Your task to perform on an android device: find photos in the google photos app Image 0: 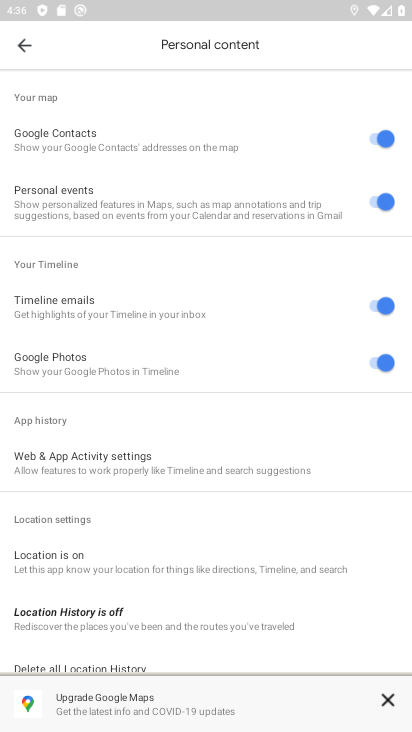
Step 0: click (21, 41)
Your task to perform on an android device: find photos in the google photos app Image 1: 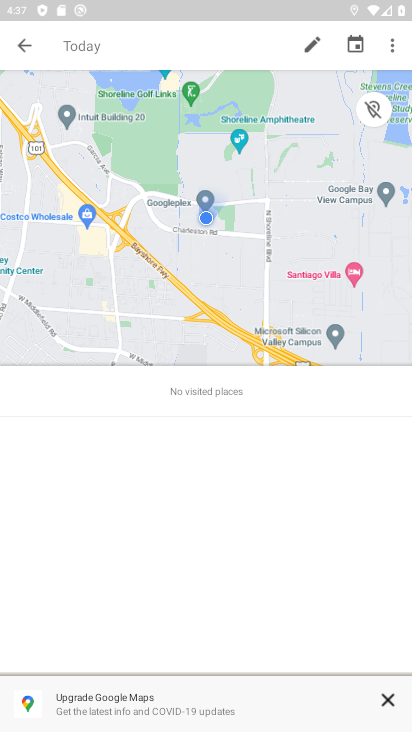
Step 1: click (23, 50)
Your task to perform on an android device: find photos in the google photos app Image 2: 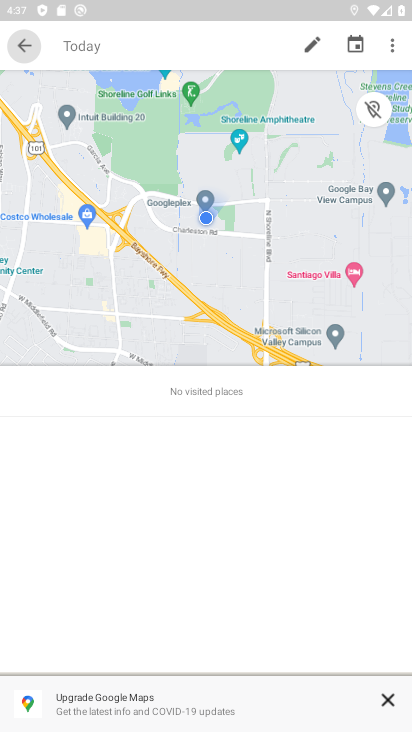
Step 2: click (15, 47)
Your task to perform on an android device: find photos in the google photos app Image 3: 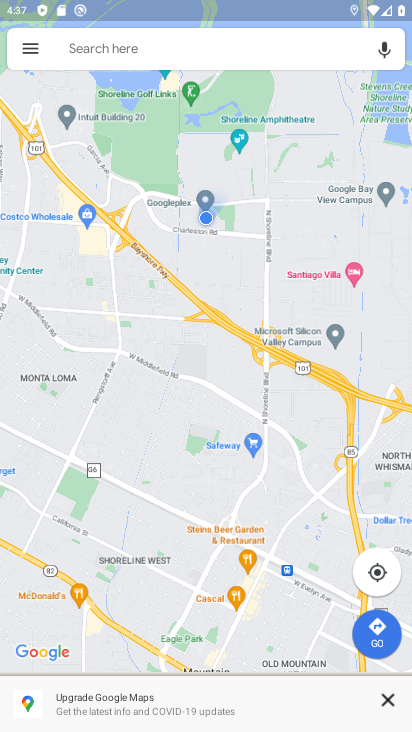
Step 3: click (30, 47)
Your task to perform on an android device: find photos in the google photos app Image 4: 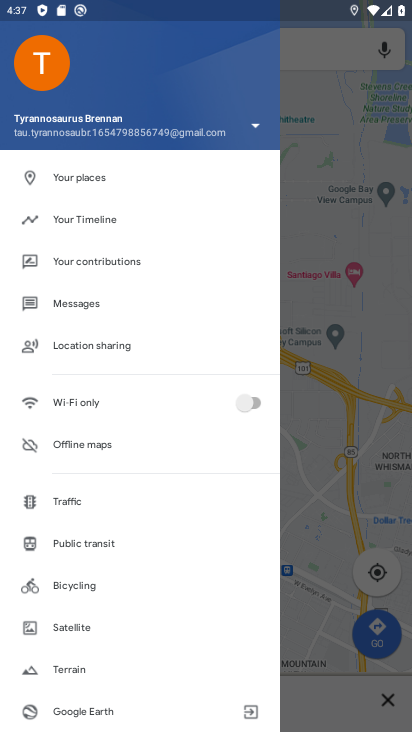
Step 4: click (330, 247)
Your task to perform on an android device: find photos in the google photos app Image 5: 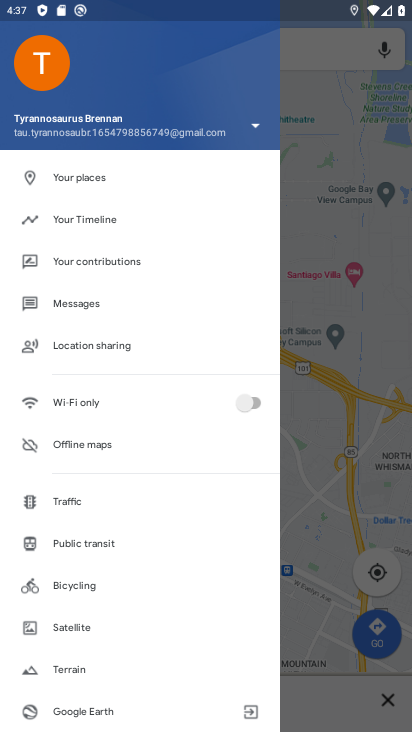
Step 5: click (330, 247)
Your task to perform on an android device: find photos in the google photos app Image 6: 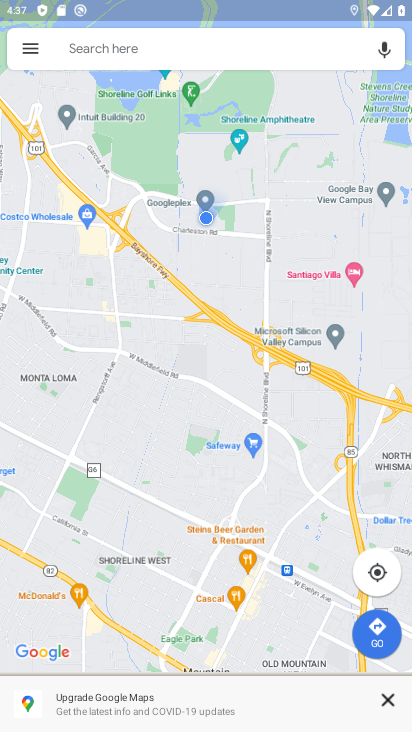
Step 6: press back button
Your task to perform on an android device: find photos in the google photos app Image 7: 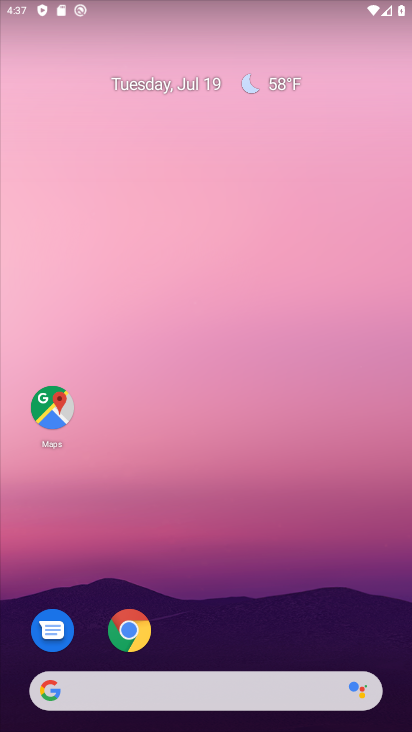
Step 7: drag from (282, 430) to (190, 26)
Your task to perform on an android device: find photos in the google photos app Image 8: 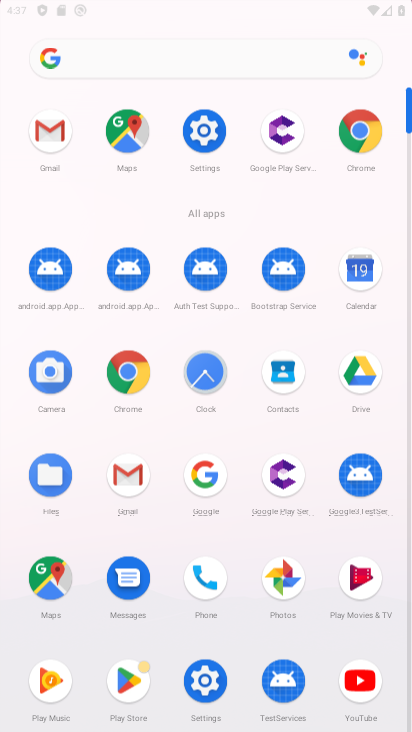
Step 8: drag from (185, 622) to (133, 145)
Your task to perform on an android device: find photos in the google photos app Image 9: 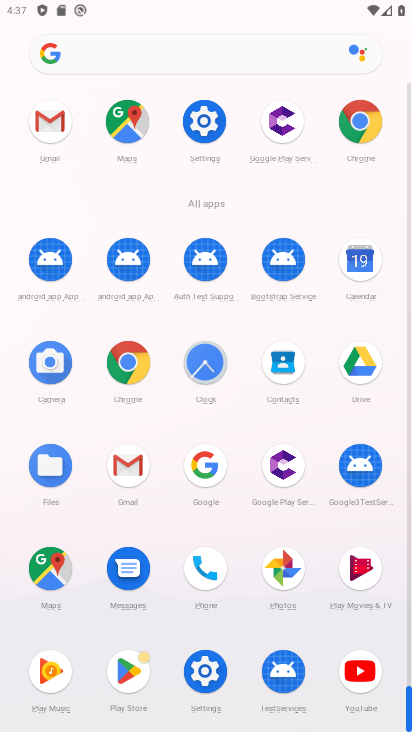
Step 9: click (300, 556)
Your task to perform on an android device: find photos in the google photos app Image 10: 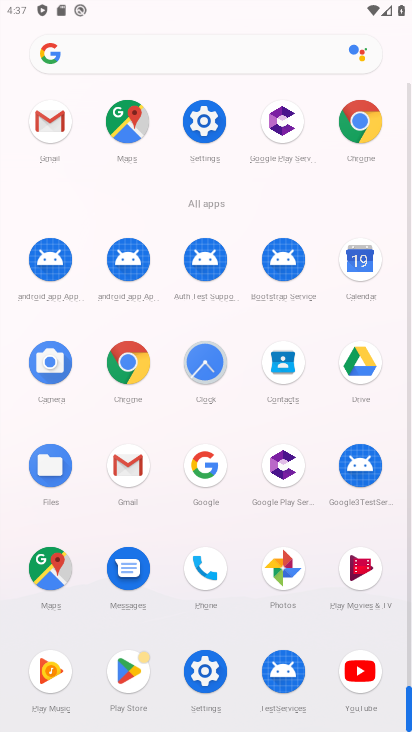
Step 10: click (294, 556)
Your task to perform on an android device: find photos in the google photos app Image 11: 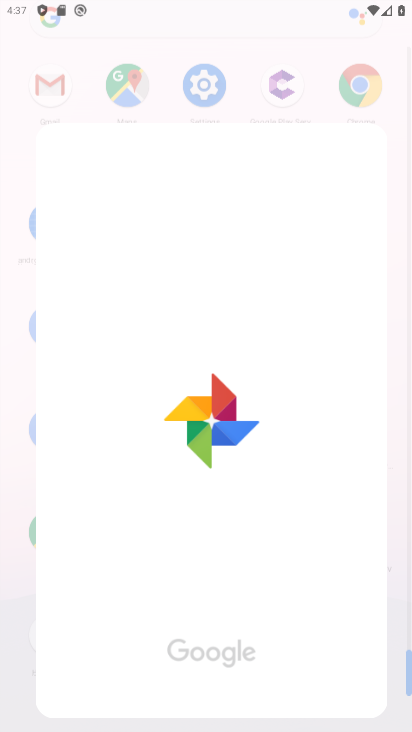
Step 11: click (285, 560)
Your task to perform on an android device: find photos in the google photos app Image 12: 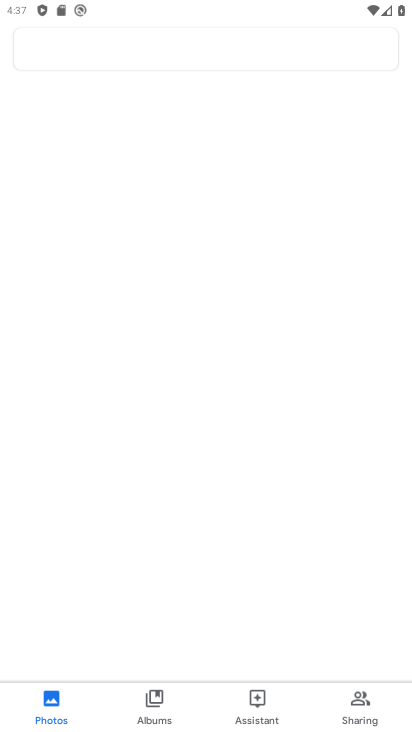
Step 12: click (285, 560)
Your task to perform on an android device: find photos in the google photos app Image 13: 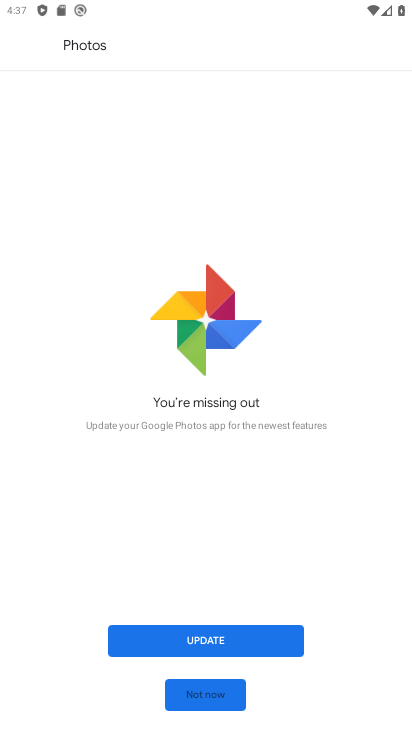
Step 13: click (204, 689)
Your task to perform on an android device: find photos in the google photos app Image 14: 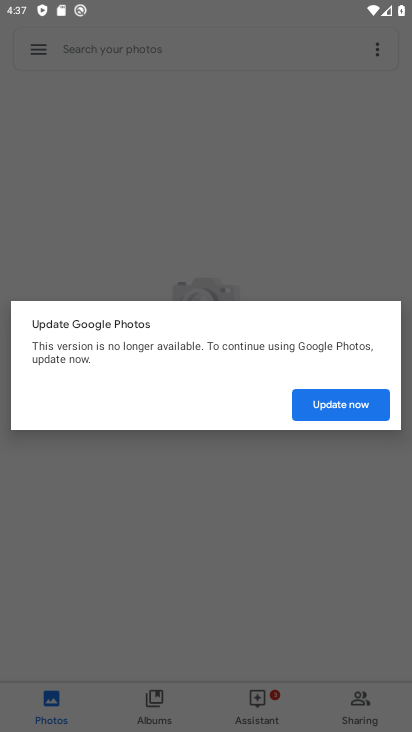
Step 14: click (334, 406)
Your task to perform on an android device: find photos in the google photos app Image 15: 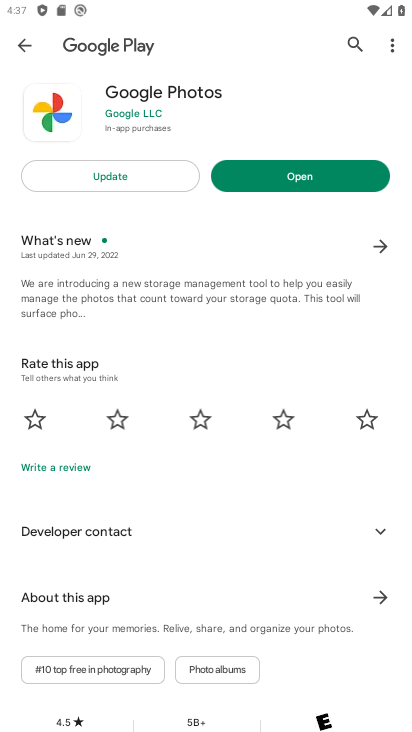
Step 15: click (312, 176)
Your task to perform on an android device: find photos in the google photos app Image 16: 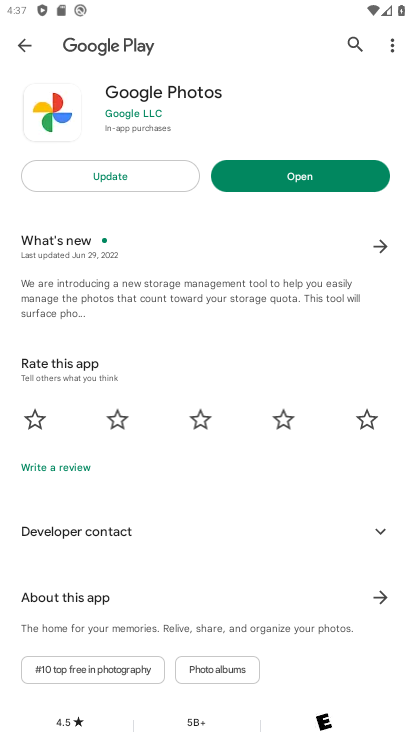
Step 16: click (312, 176)
Your task to perform on an android device: find photos in the google photos app Image 17: 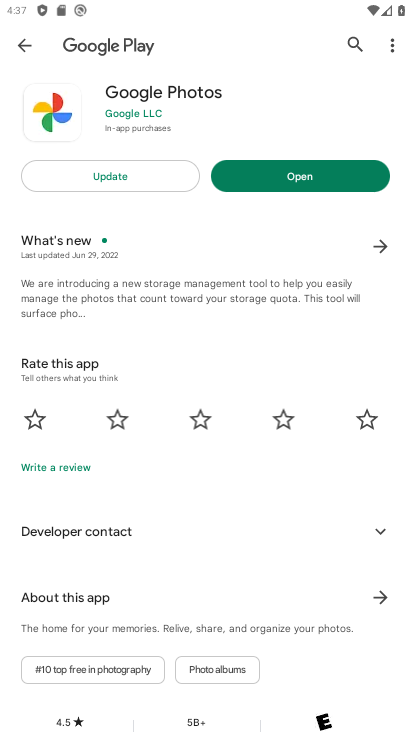
Step 17: click (312, 176)
Your task to perform on an android device: find photos in the google photos app Image 18: 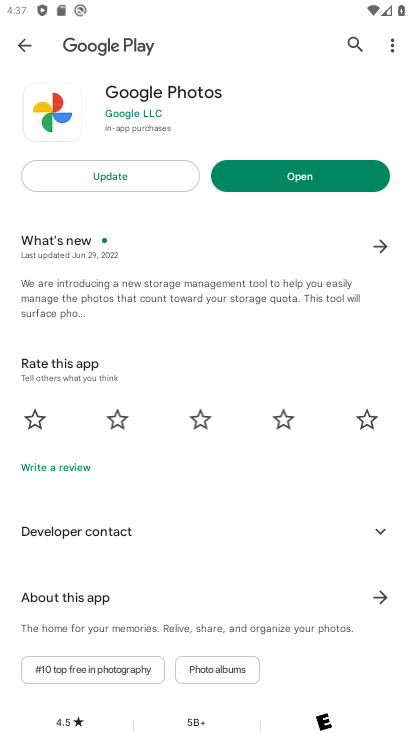
Step 18: click (313, 176)
Your task to perform on an android device: find photos in the google photos app Image 19: 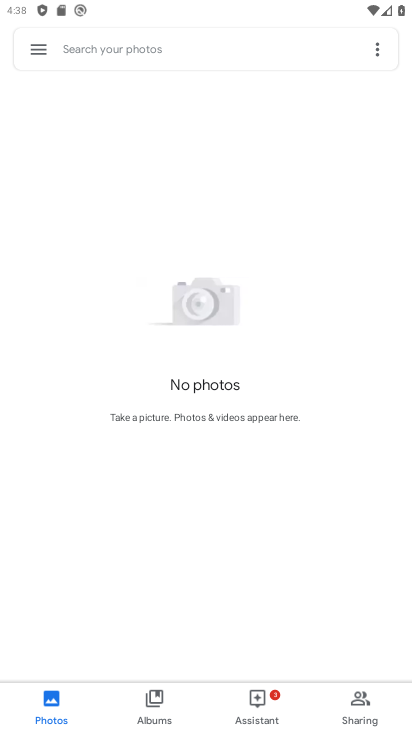
Step 19: task complete